Your task to perform on an android device: turn off location Image 0: 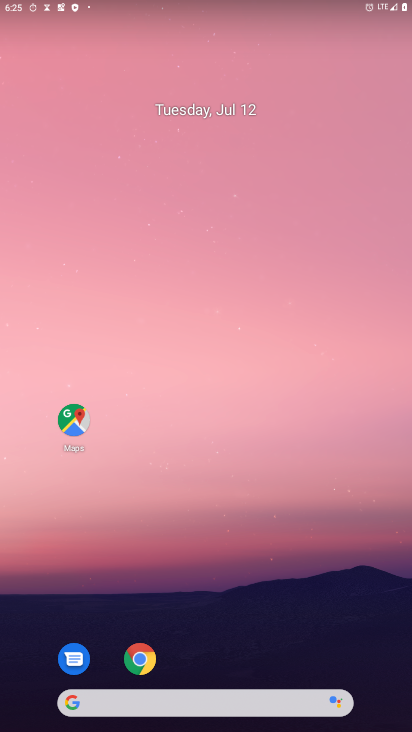
Step 0: drag from (205, 426) to (229, 106)
Your task to perform on an android device: turn off location Image 1: 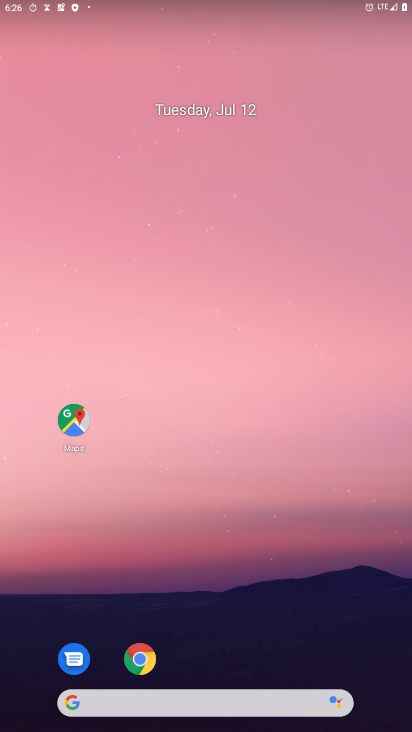
Step 1: drag from (222, 380) to (232, 25)
Your task to perform on an android device: turn off location Image 2: 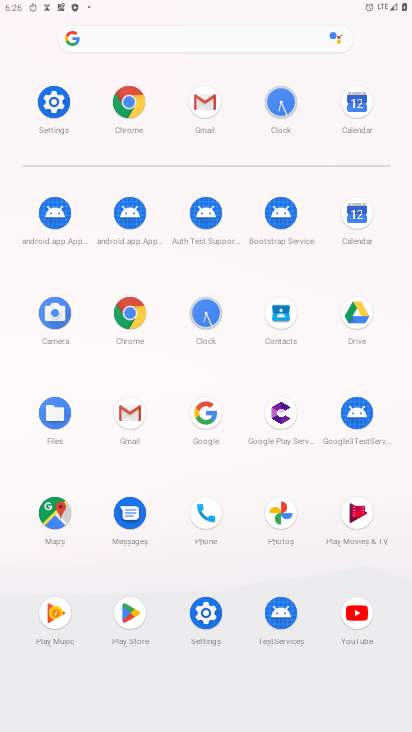
Step 2: click (47, 116)
Your task to perform on an android device: turn off location Image 3: 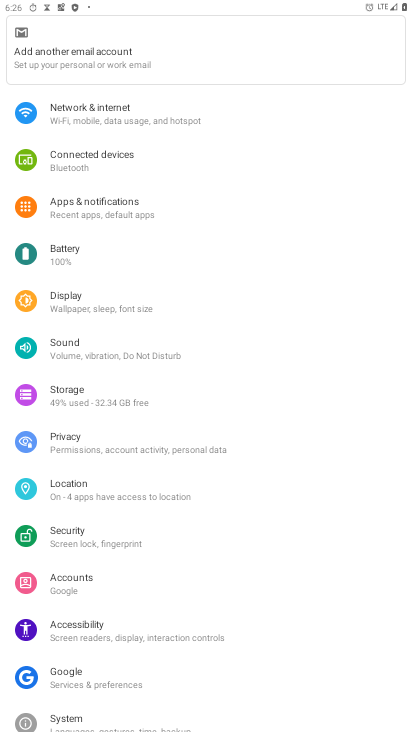
Step 3: click (83, 494)
Your task to perform on an android device: turn off location Image 4: 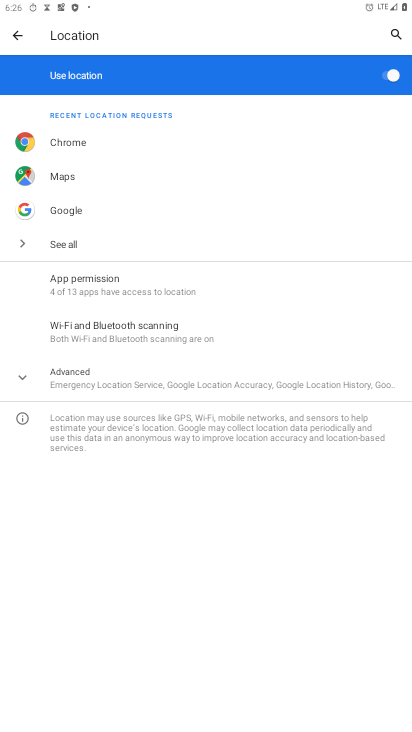
Step 4: click (388, 72)
Your task to perform on an android device: turn off location Image 5: 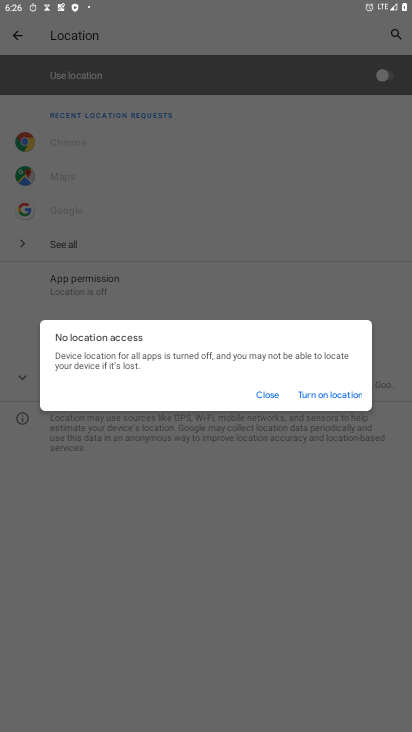
Step 5: task complete